Your task to perform on an android device: Open wifi settings Image 0: 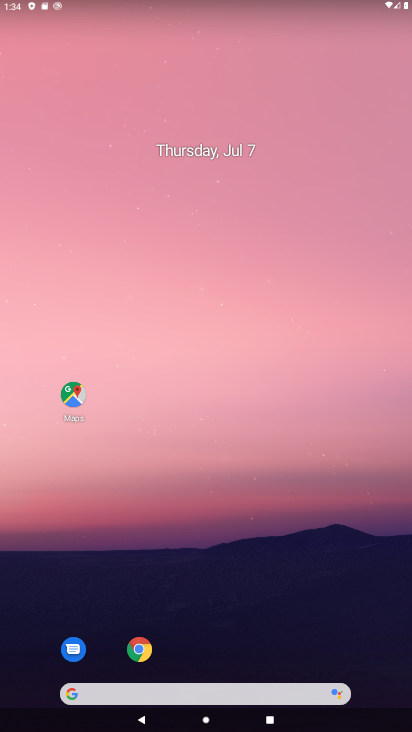
Step 0: drag from (379, 693) to (369, 108)
Your task to perform on an android device: Open wifi settings Image 1: 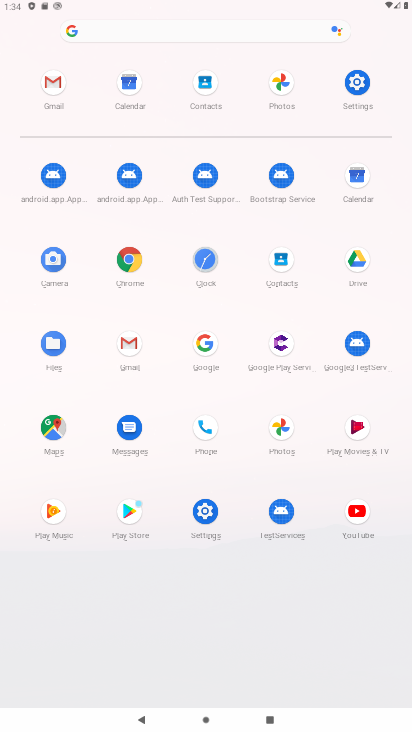
Step 1: click (207, 515)
Your task to perform on an android device: Open wifi settings Image 2: 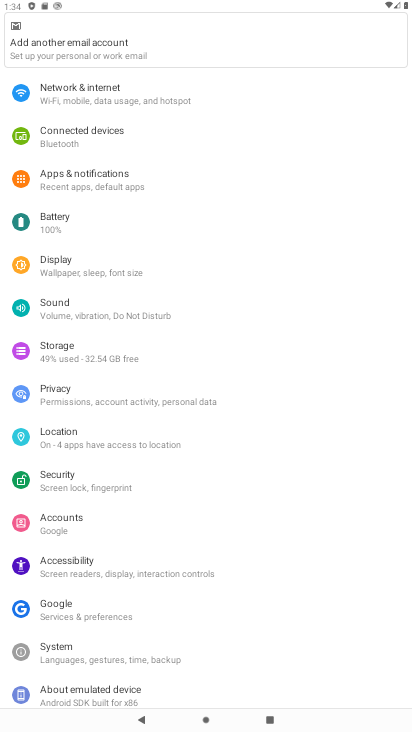
Step 2: click (89, 92)
Your task to perform on an android device: Open wifi settings Image 3: 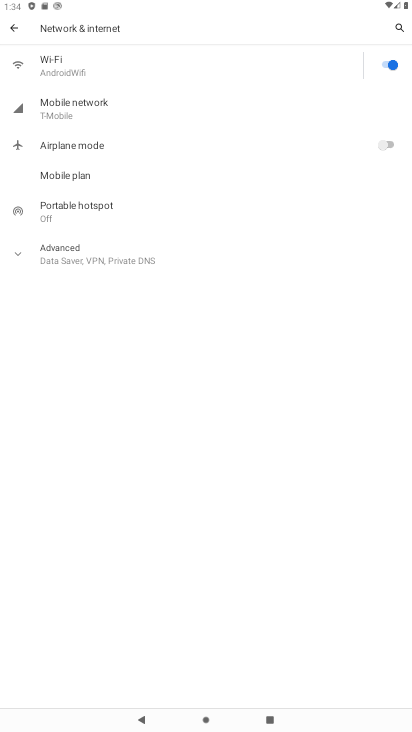
Step 3: click (54, 59)
Your task to perform on an android device: Open wifi settings Image 4: 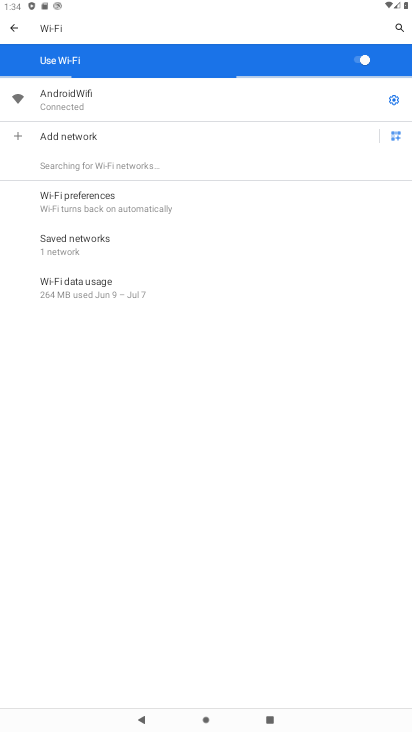
Step 4: click (394, 100)
Your task to perform on an android device: Open wifi settings Image 5: 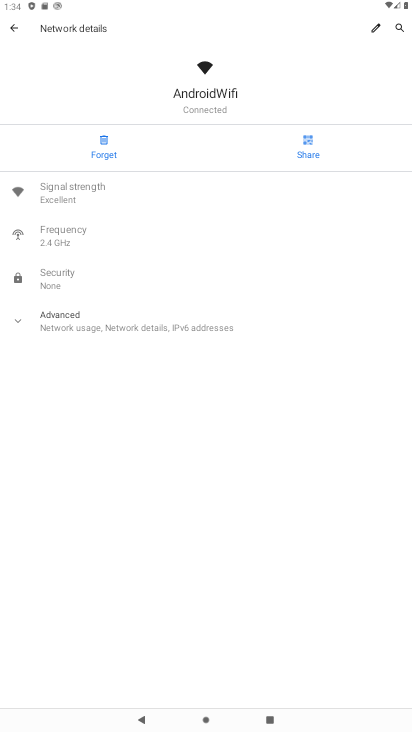
Step 5: task complete